Your task to perform on an android device: Go to Wikipedia Image 0: 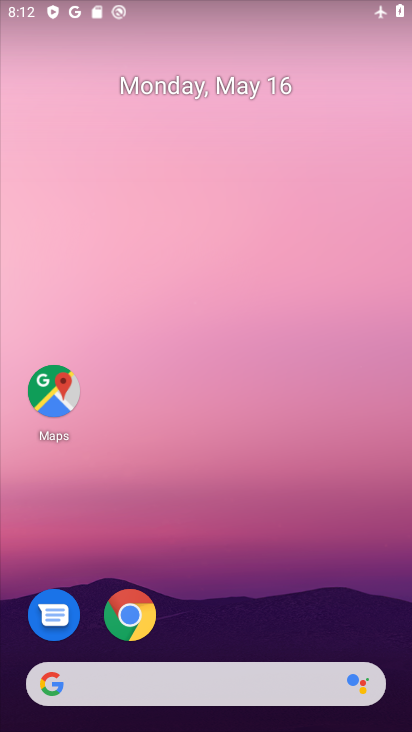
Step 0: drag from (311, 25) to (324, 606)
Your task to perform on an android device: Go to Wikipedia Image 1: 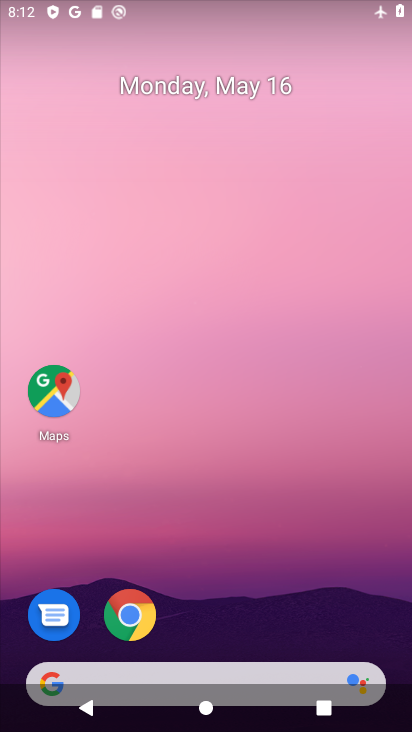
Step 1: drag from (314, 5) to (324, 516)
Your task to perform on an android device: Go to Wikipedia Image 2: 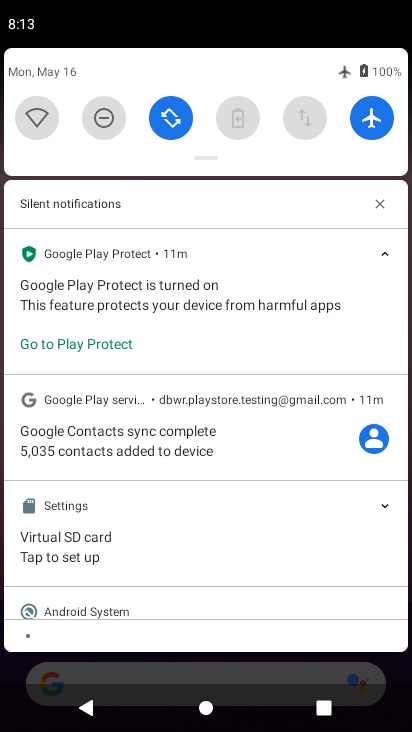
Step 2: press home button
Your task to perform on an android device: Go to Wikipedia Image 3: 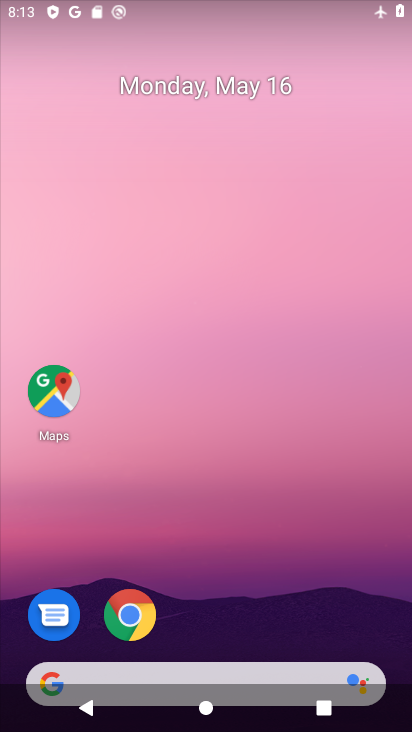
Step 3: click (137, 609)
Your task to perform on an android device: Go to Wikipedia Image 4: 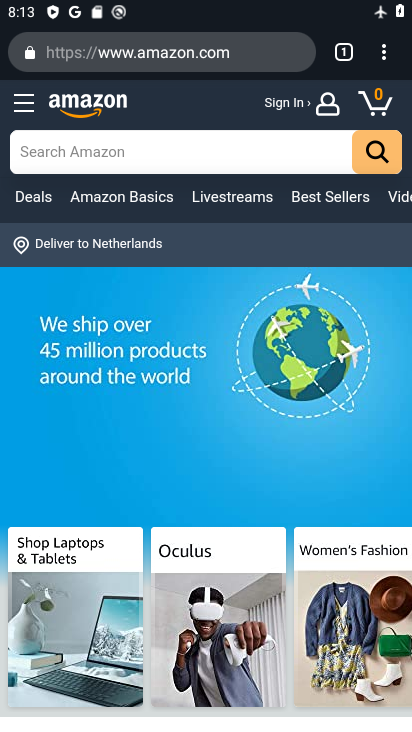
Step 4: click (337, 59)
Your task to perform on an android device: Go to Wikipedia Image 5: 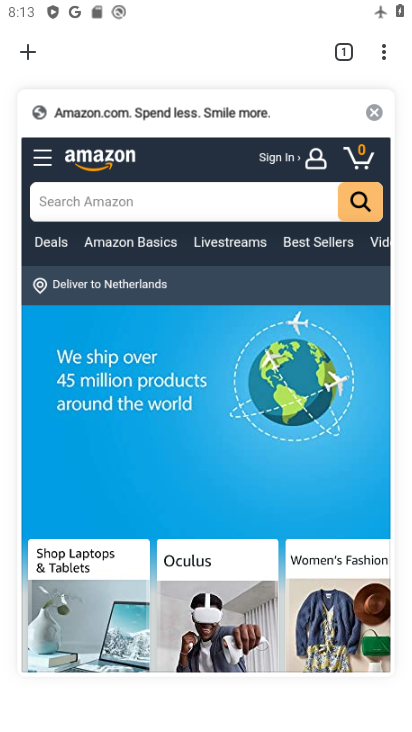
Step 5: click (3, 49)
Your task to perform on an android device: Go to Wikipedia Image 6: 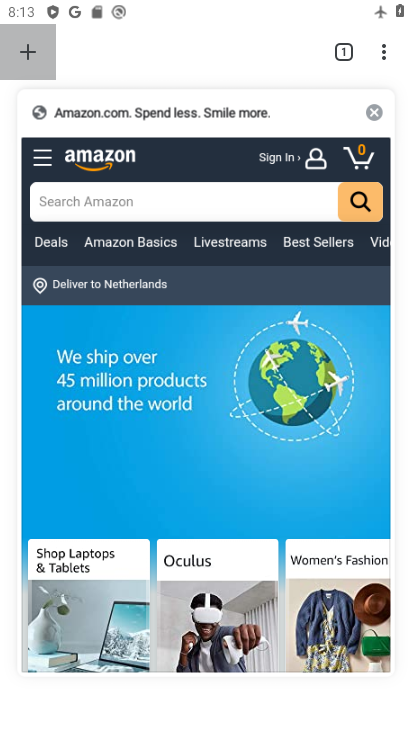
Step 6: click (25, 51)
Your task to perform on an android device: Go to Wikipedia Image 7: 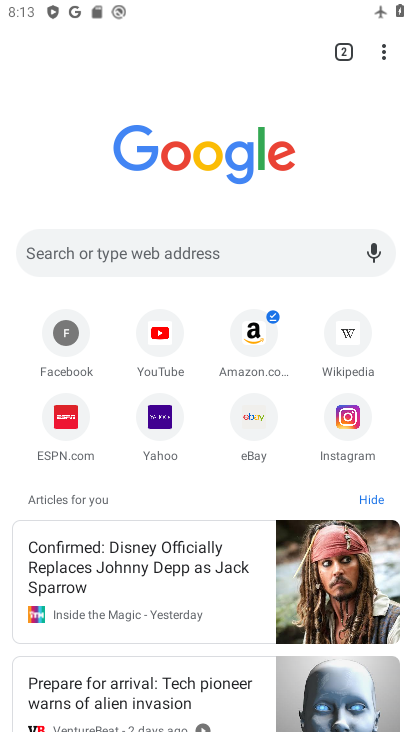
Step 7: click (328, 327)
Your task to perform on an android device: Go to Wikipedia Image 8: 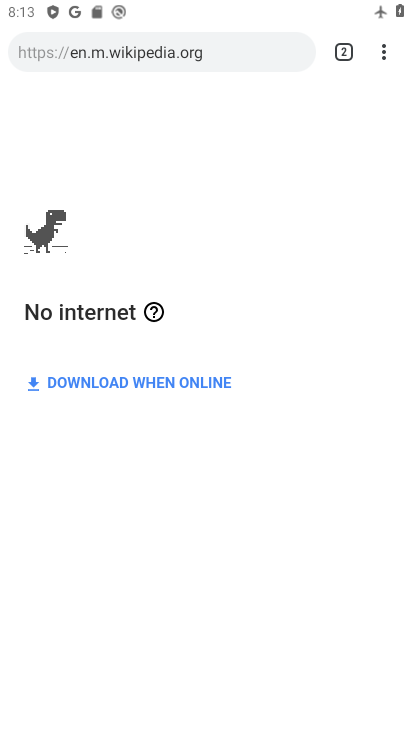
Step 8: task complete